Your task to perform on an android device: What's the weather going to be tomorrow? Image 0: 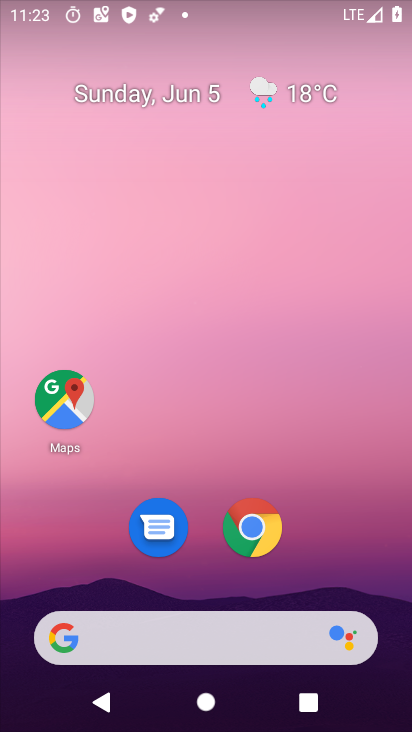
Step 0: click (300, 97)
Your task to perform on an android device: What's the weather going to be tomorrow? Image 1: 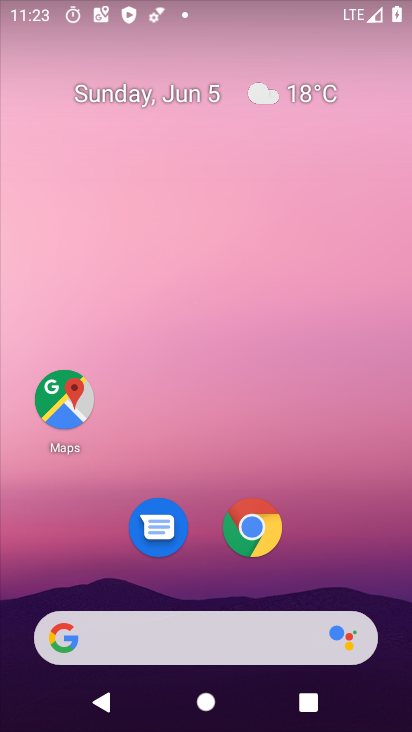
Step 1: click (310, 91)
Your task to perform on an android device: What's the weather going to be tomorrow? Image 2: 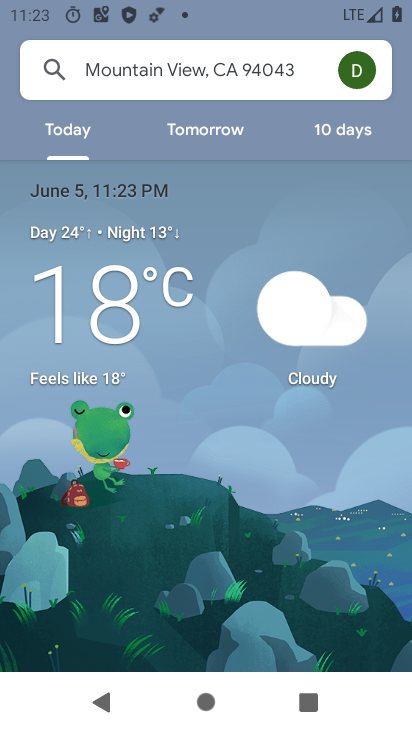
Step 2: click (201, 126)
Your task to perform on an android device: What's the weather going to be tomorrow? Image 3: 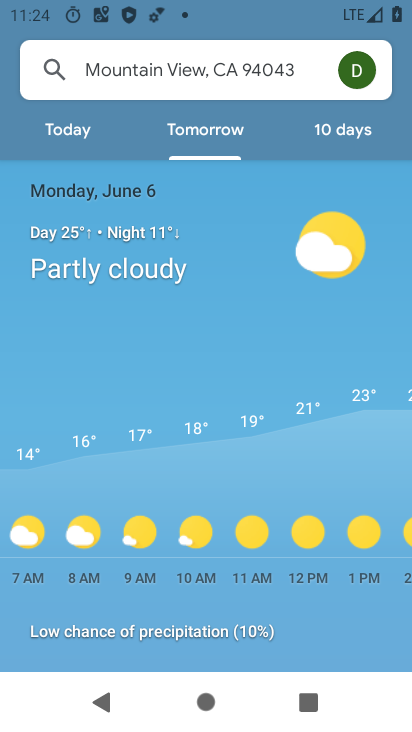
Step 3: task complete